Your task to perform on an android device: turn on airplane mode Image 0: 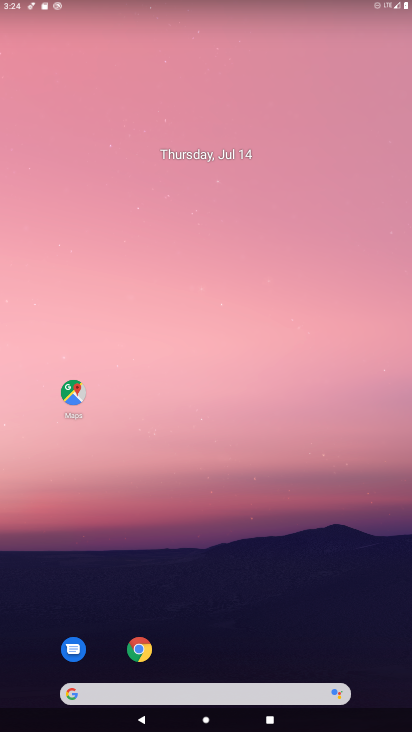
Step 0: drag from (249, 600) to (246, 281)
Your task to perform on an android device: turn on airplane mode Image 1: 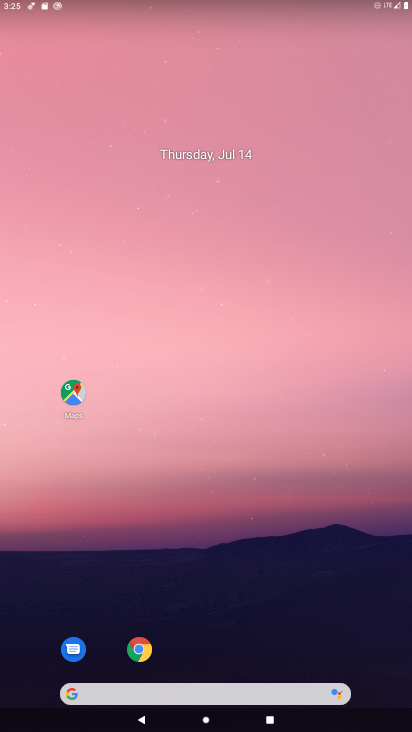
Step 1: drag from (244, 580) to (260, 414)
Your task to perform on an android device: turn on airplane mode Image 2: 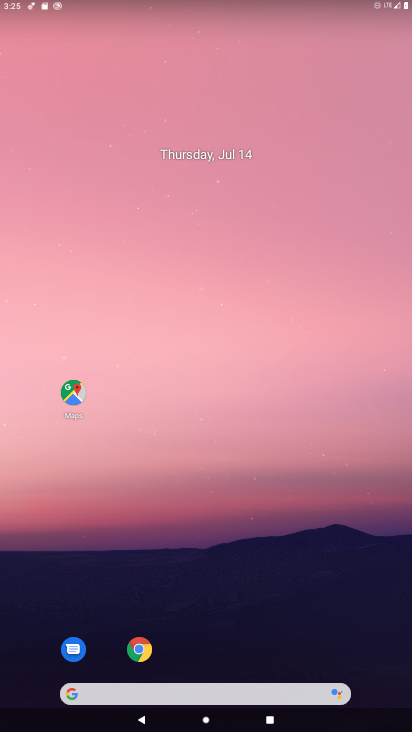
Step 2: drag from (253, 634) to (253, 173)
Your task to perform on an android device: turn on airplane mode Image 3: 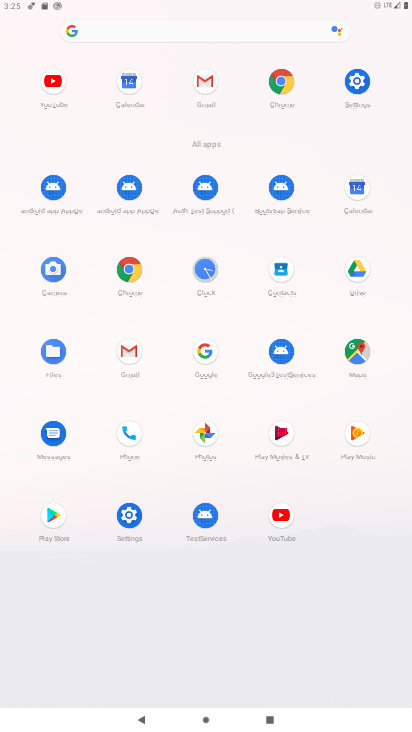
Step 3: click (349, 75)
Your task to perform on an android device: turn on airplane mode Image 4: 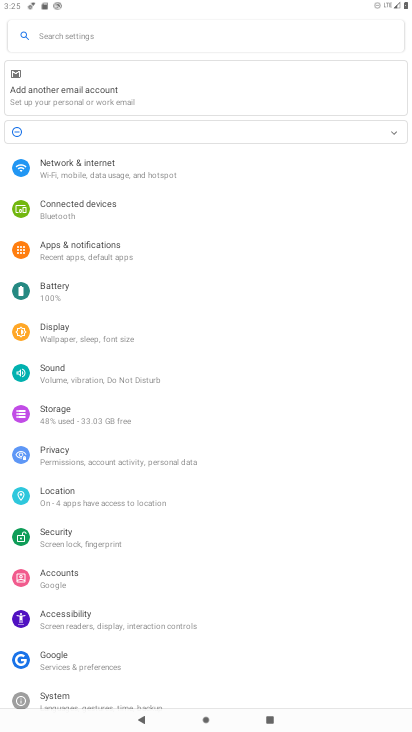
Step 4: click (141, 163)
Your task to perform on an android device: turn on airplane mode Image 5: 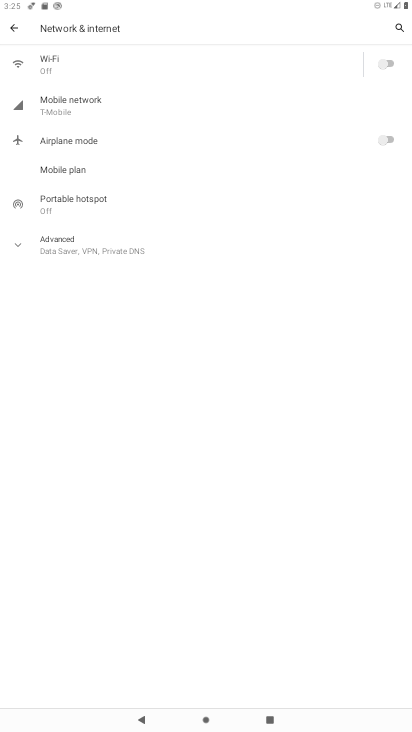
Step 5: click (388, 135)
Your task to perform on an android device: turn on airplane mode Image 6: 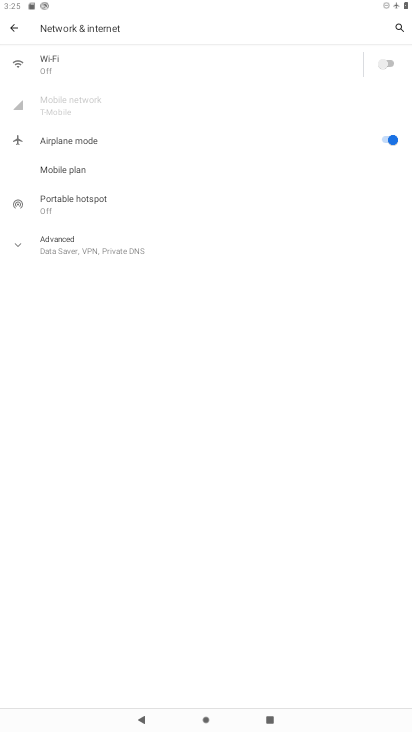
Step 6: task complete